Your task to perform on an android device: open the mobile data screen to see how much data has been used Image 0: 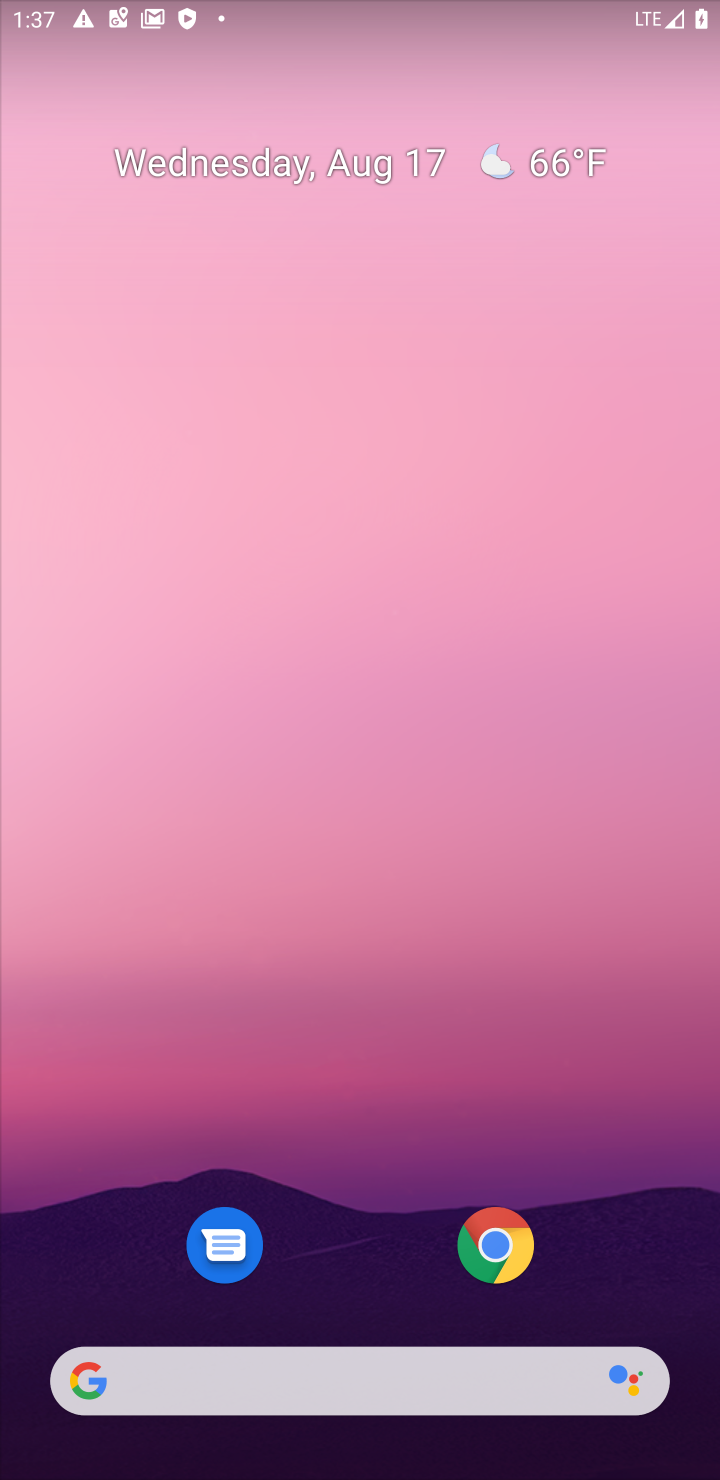
Step 0: drag from (376, 1327) to (342, 154)
Your task to perform on an android device: open the mobile data screen to see how much data has been used Image 1: 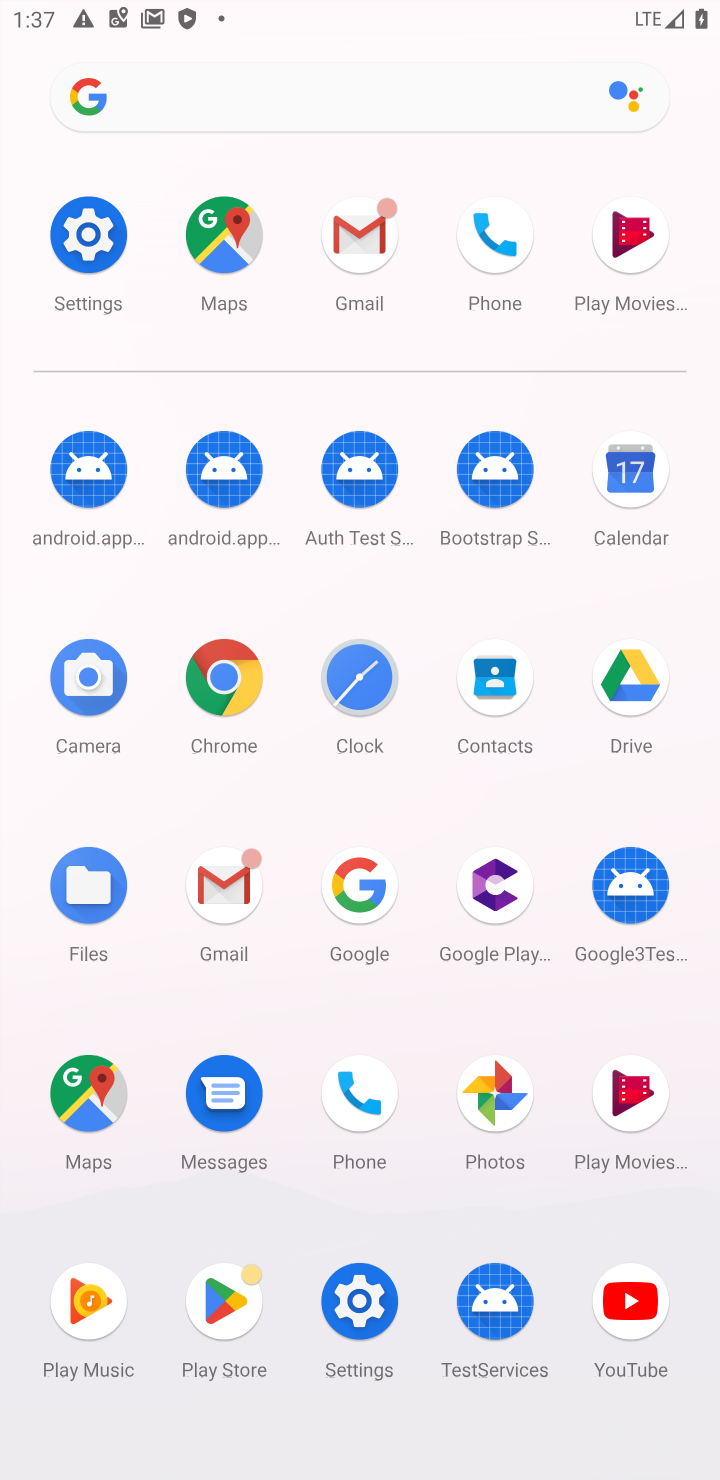
Step 1: click (362, 1305)
Your task to perform on an android device: open the mobile data screen to see how much data has been used Image 2: 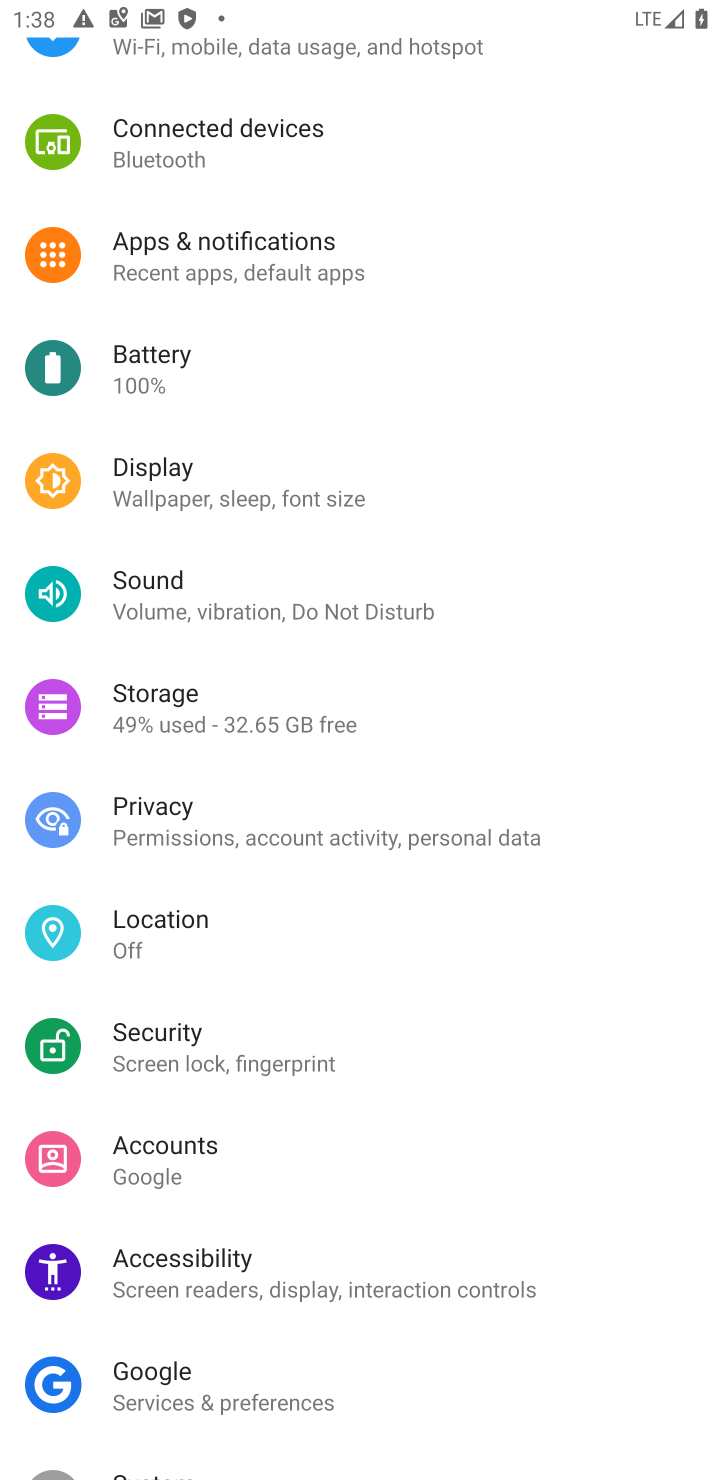
Step 2: click (239, 219)
Your task to perform on an android device: open the mobile data screen to see how much data has been used Image 3: 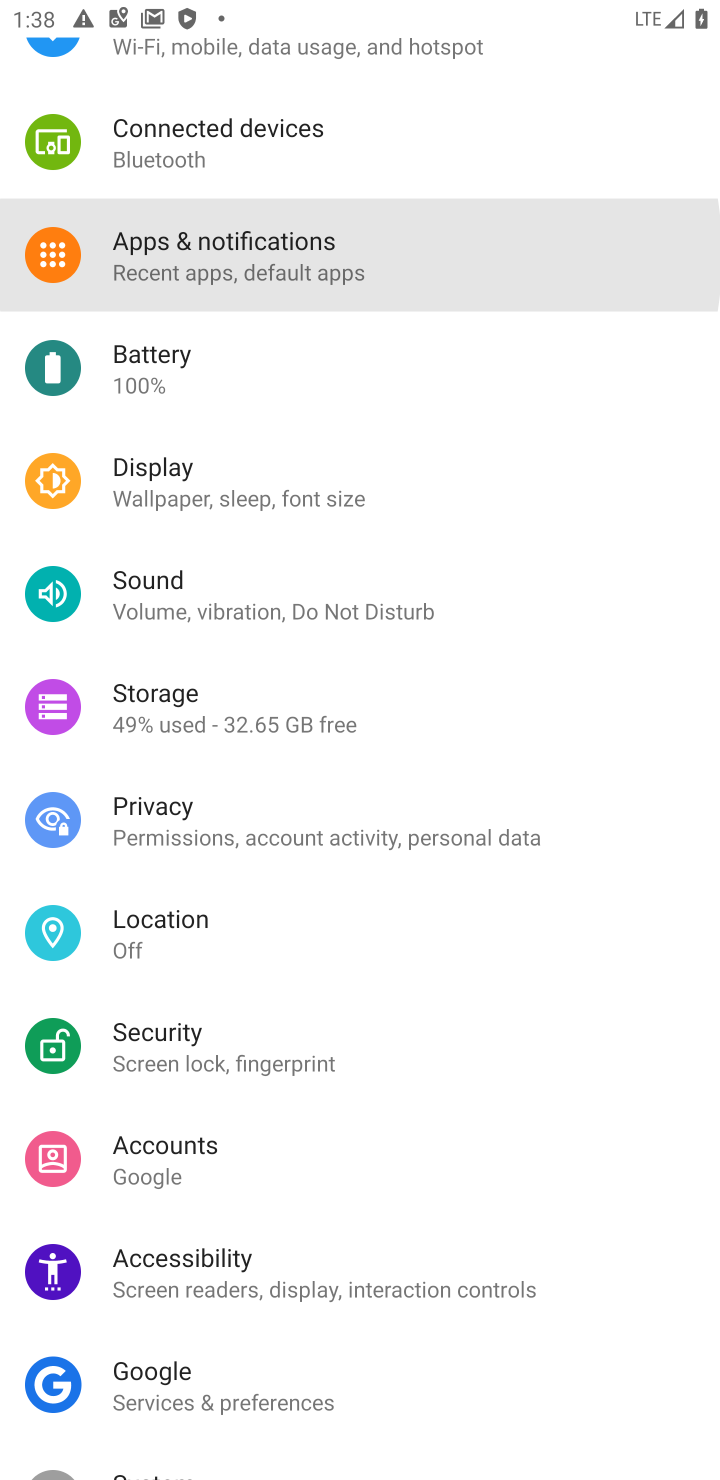
Step 3: drag from (258, 584) to (271, 1188)
Your task to perform on an android device: open the mobile data screen to see how much data has been used Image 4: 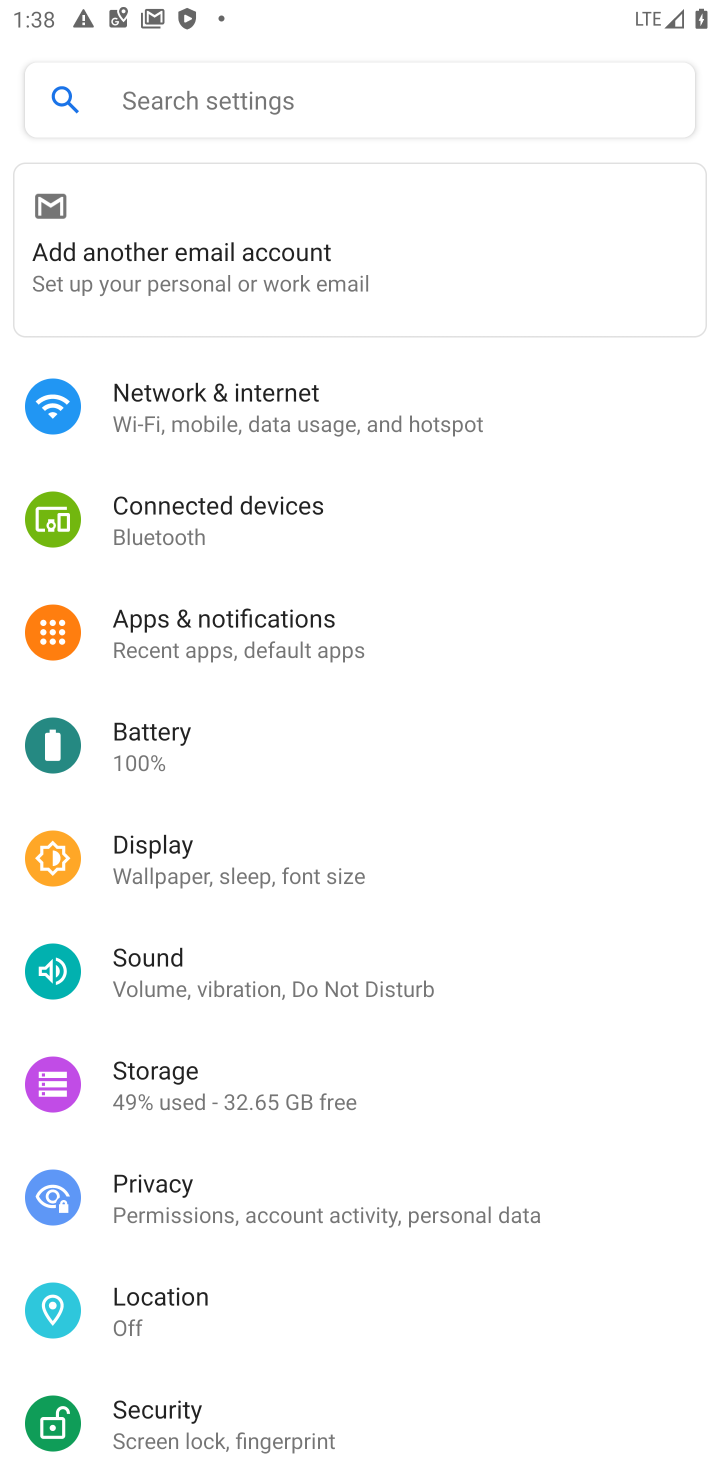
Step 4: click (208, 418)
Your task to perform on an android device: open the mobile data screen to see how much data has been used Image 5: 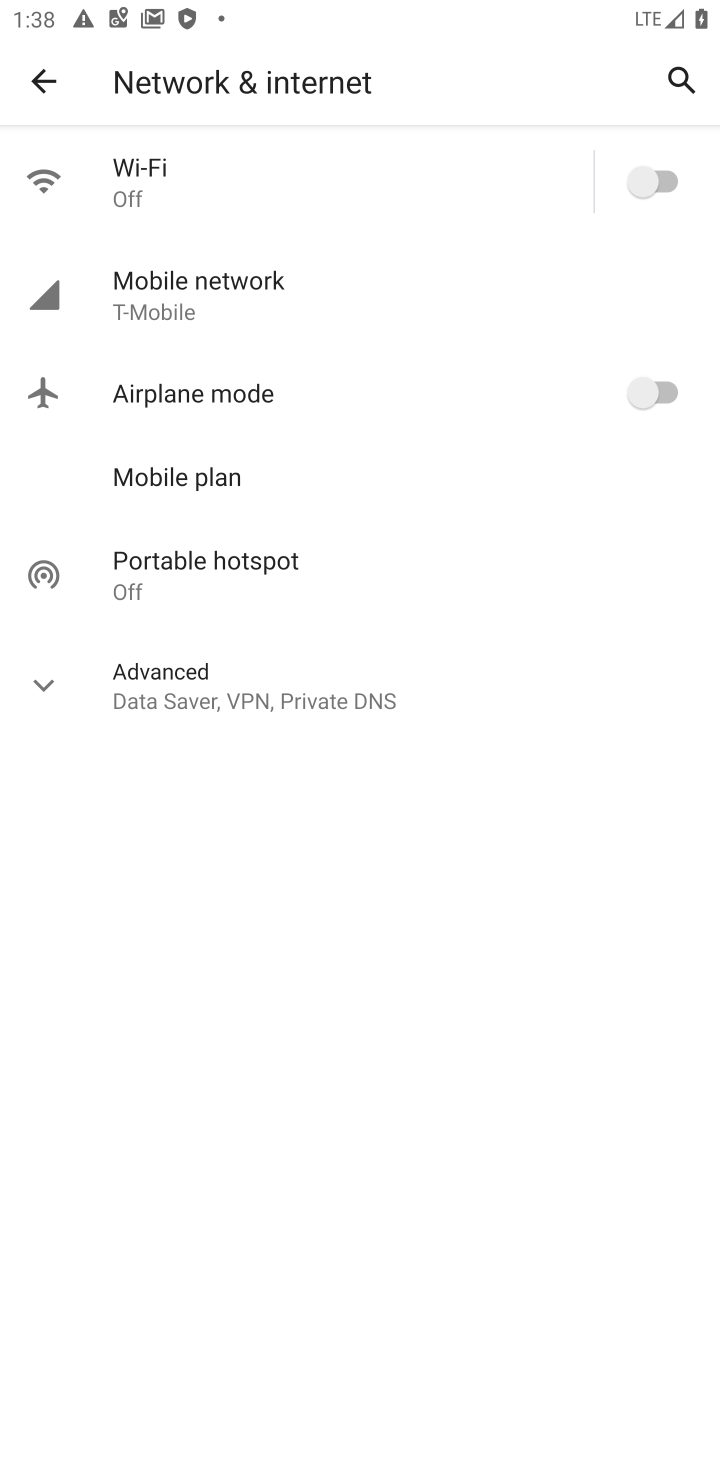
Step 5: click (158, 285)
Your task to perform on an android device: open the mobile data screen to see how much data has been used Image 6: 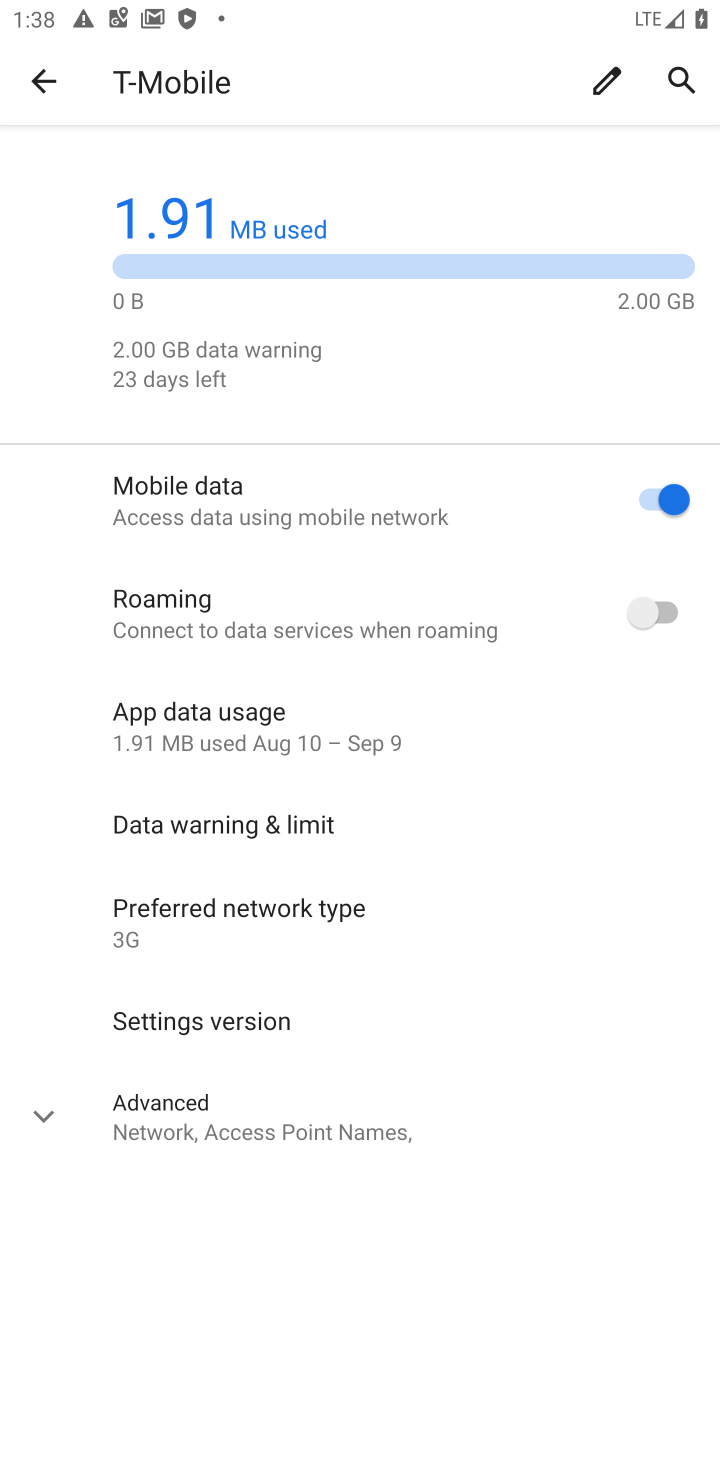
Step 6: click (187, 732)
Your task to perform on an android device: open the mobile data screen to see how much data has been used Image 7: 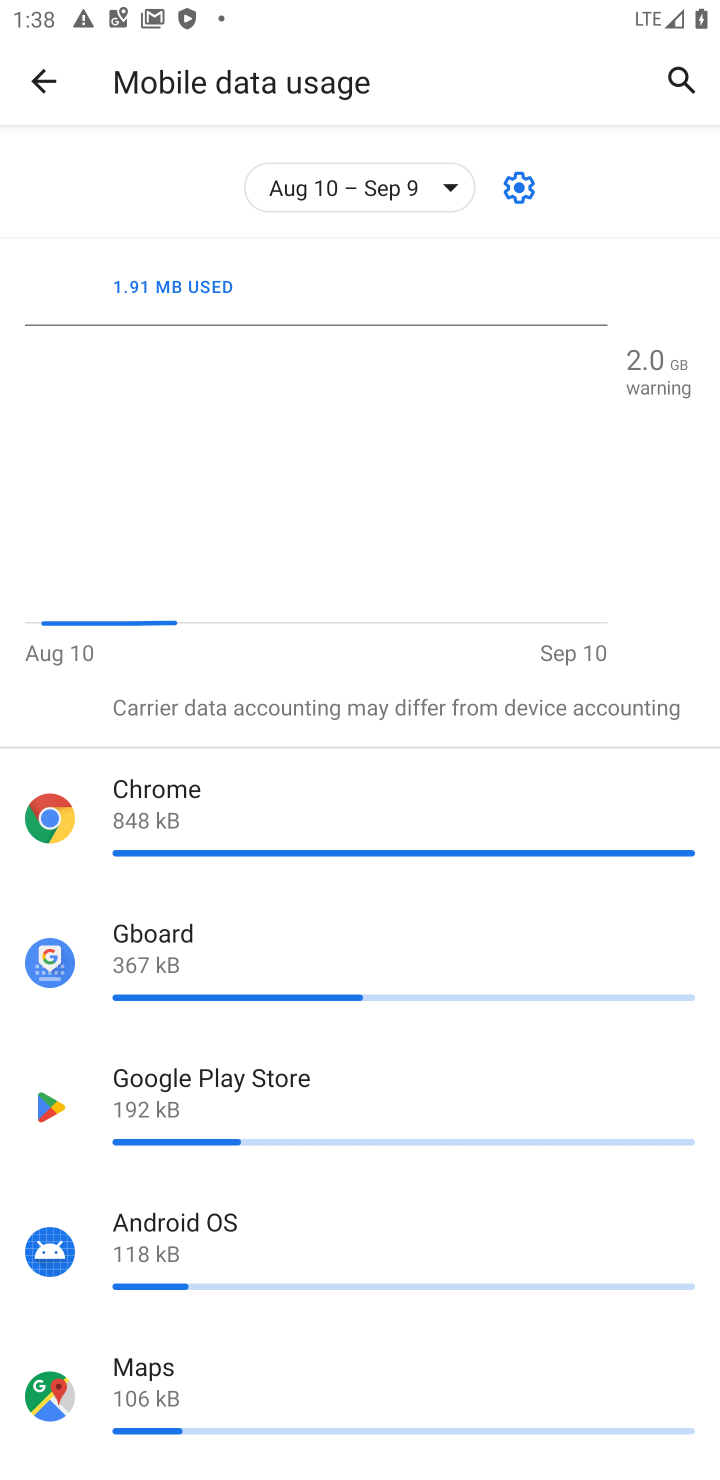
Step 7: task complete